Your task to perform on an android device: Open maps Image 0: 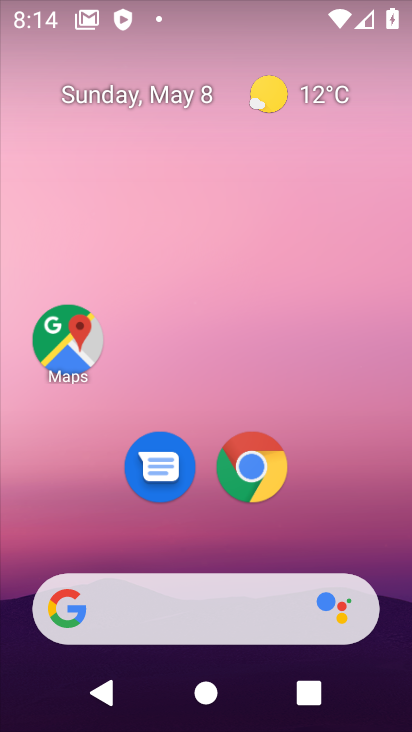
Step 0: click (55, 338)
Your task to perform on an android device: Open maps Image 1: 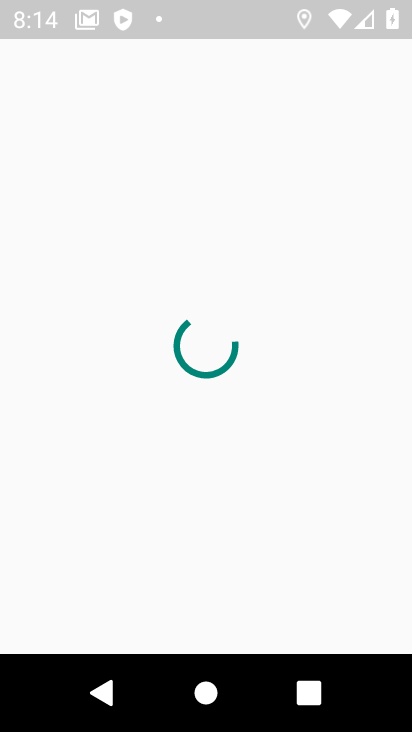
Step 1: task complete